Your task to perform on an android device: make emails show in primary in the gmail app Image 0: 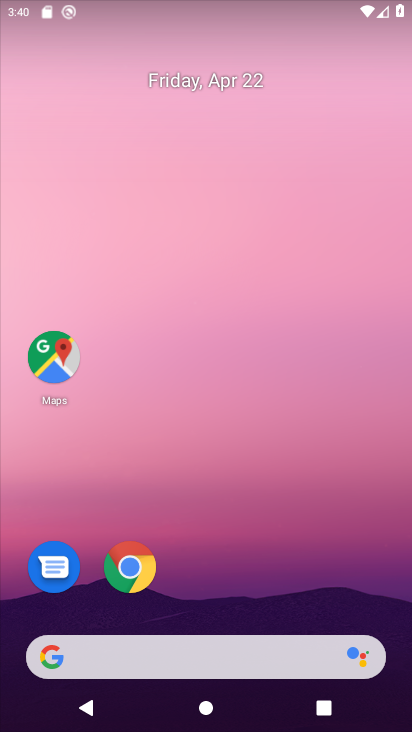
Step 0: drag from (268, 598) to (193, 281)
Your task to perform on an android device: make emails show in primary in the gmail app Image 1: 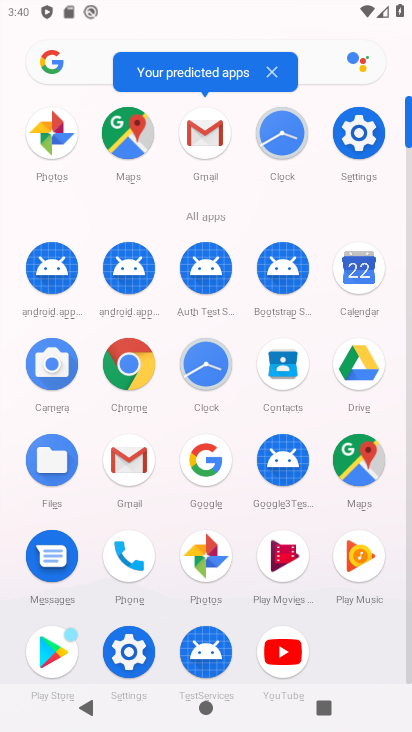
Step 1: click (214, 148)
Your task to perform on an android device: make emails show in primary in the gmail app Image 2: 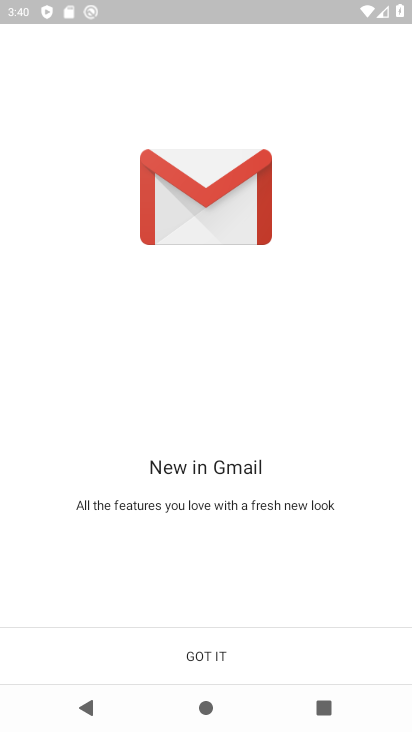
Step 2: click (196, 655)
Your task to perform on an android device: make emails show in primary in the gmail app Image 3: 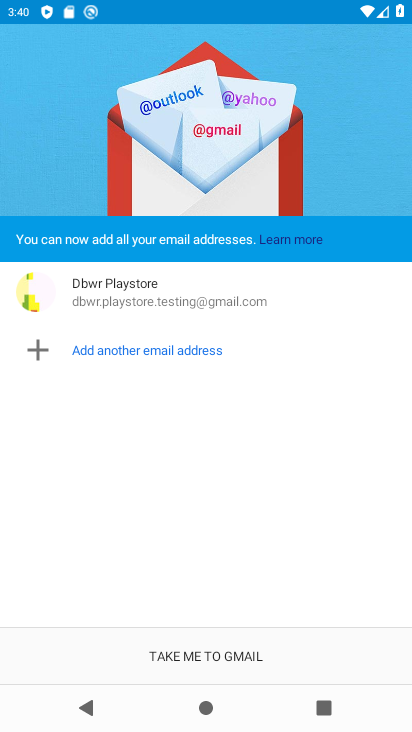
Step 3: click (196, 655)
Your task to perform on an android device: make emails show in primary in the gmail app Image 4: 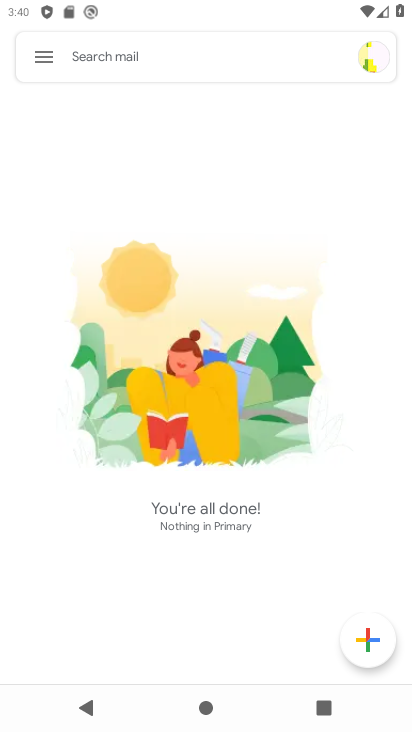
Step 4: click (49, 45)
Your task to perform on an android device: make emails show in primary in the gmail app Image 5: 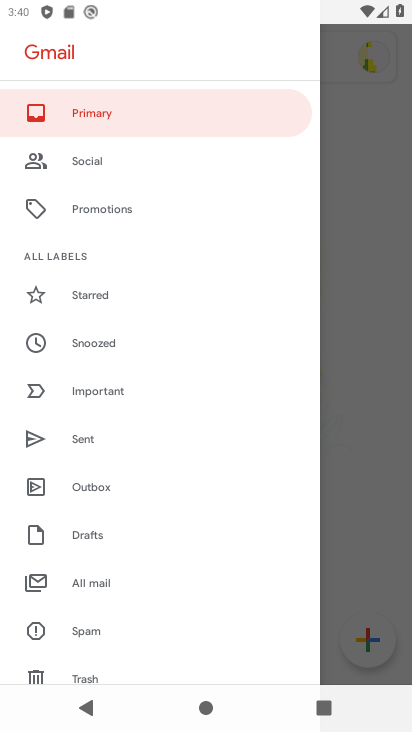
Step 5: drag from (161, 637) to (129, 334)
Your task to perform on an android device: make emails show in primary in the gmail app Image 6: 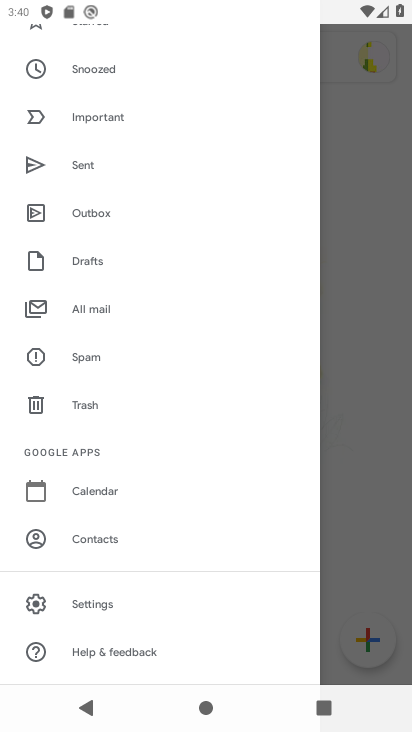
Step 6: click (149, 619)
Your task to perform on an android device: make emails show in primary in the gmail app Image 7: 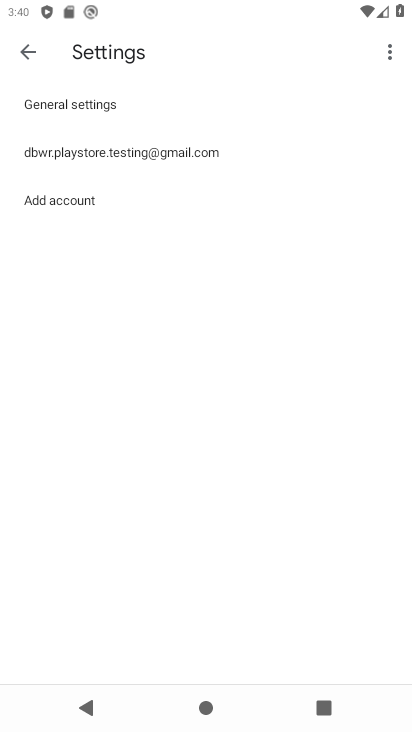
Step 7: click (186, 158)
Your task to perform on an android device: make emails show in primary in the gmail app Image 8: 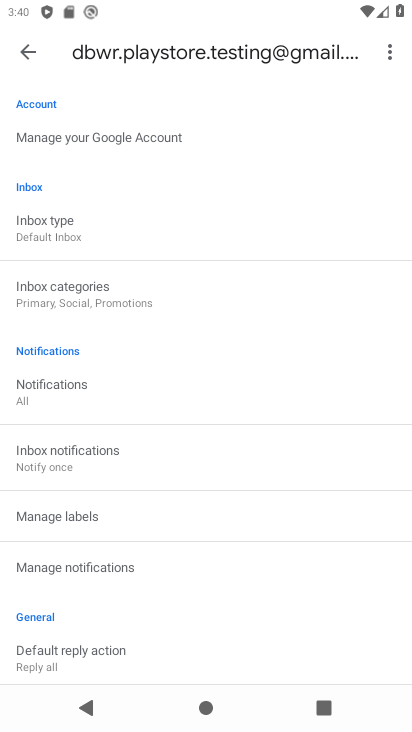
Step 8: task complete